Your task to perform on an android device: turn off notifications in google photos Image 0: 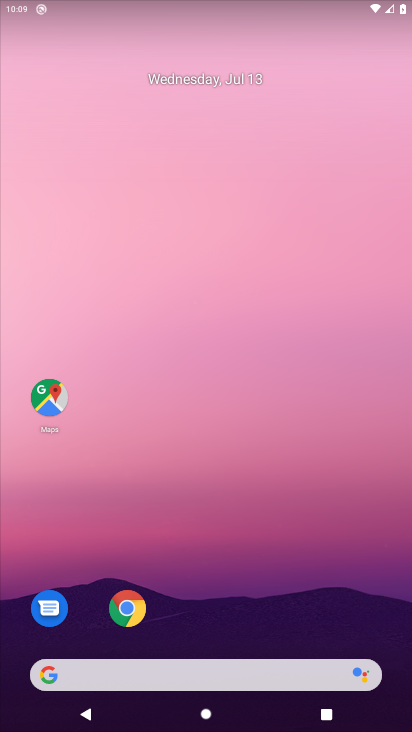
Step 0: drag from (86, 413) to (122, 233)
Your task to perform on an android device: turn off notifications in google photos Image 1: 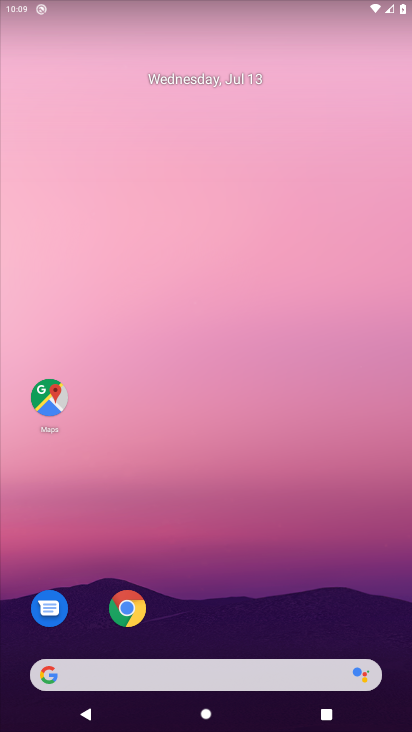
Step 1: drag from (18, 711) to (197, 1)
Your task to perform on an android device: turn off notifications in google photos Image 2: 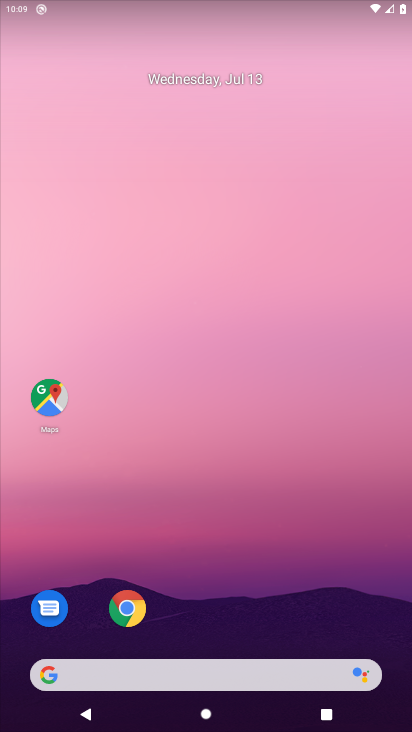
Step 2: drag from (36, 701) to (151, 6)
Your task to perform on an android device: turn off notifications in google photos Image 3: 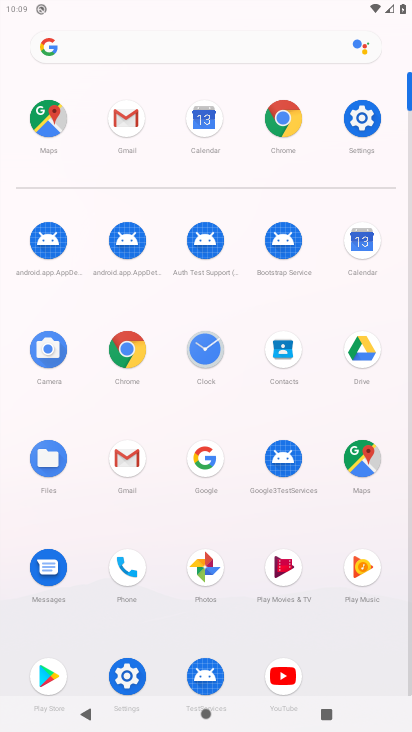
Step 3: click (203, 558)
Your task to perform on an android device: turn off notifications in google photos Image 4: 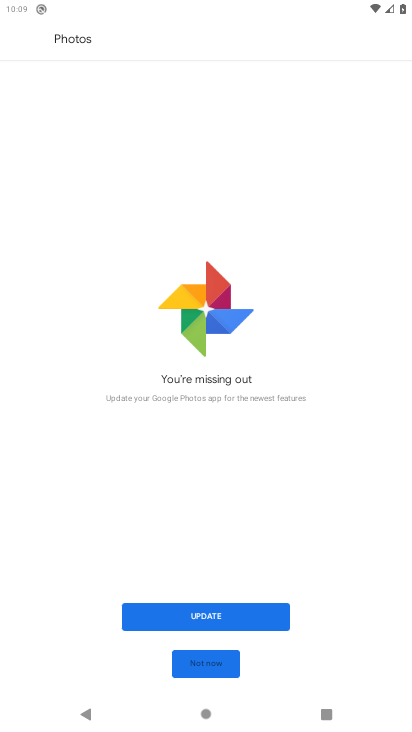
Step 4: click (198, 615)
Your task to perform on an android device: turn off notifications in google photos Image 5: 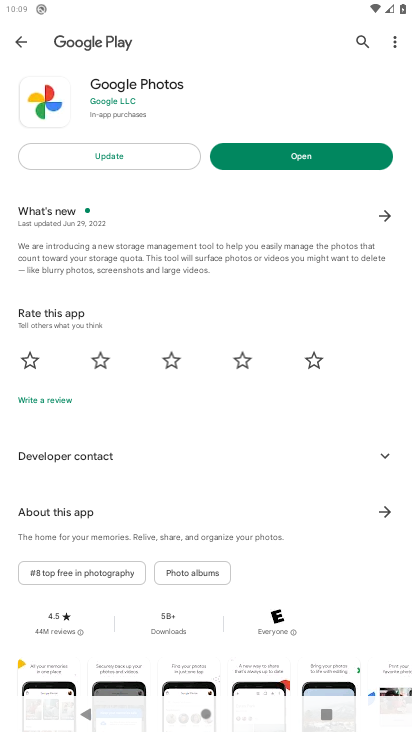
Step 5: click (293, 146)
Your task to perform on an android device: turn off notifications in google photos Image 6: 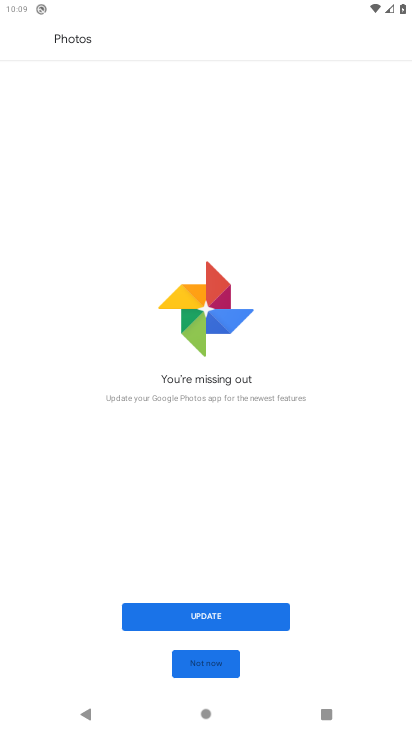
Step 6: click (215, 674)
Your task to perform on an android device: turn off notifications in google photos Image 7: 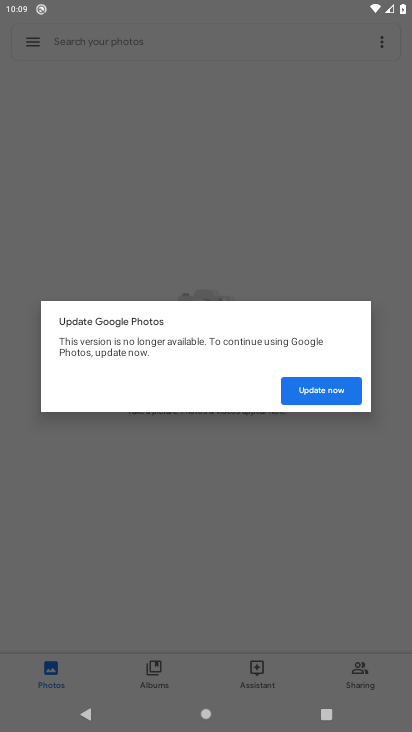
Step 7: task complete